Your task to perform on an android device: uninstall "Google Docs" Image 0: 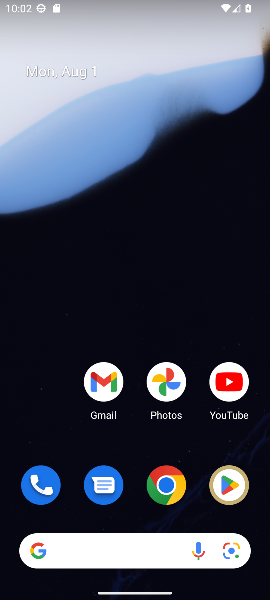
Step 0: drag from (155, 539) to (153, 49)
Your task to perform on an android device: uninstall "Google Docs" Image 1: 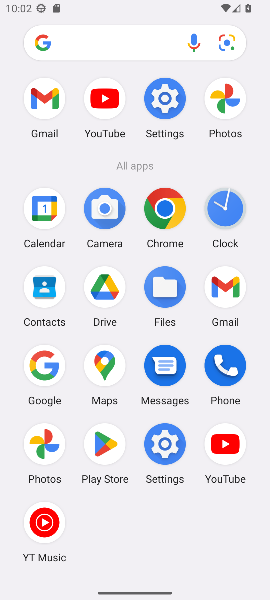
Step 1: click (92, 444)
Your task to perform on an android device: uninstall "Google Docs" Image 2: 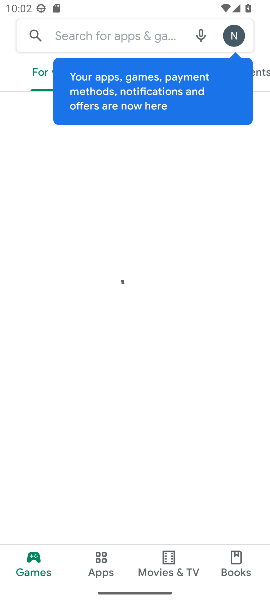
Step 2: click (135, 30)
Your task to perform on an android device: uninstall "Google Docs" Image 3: 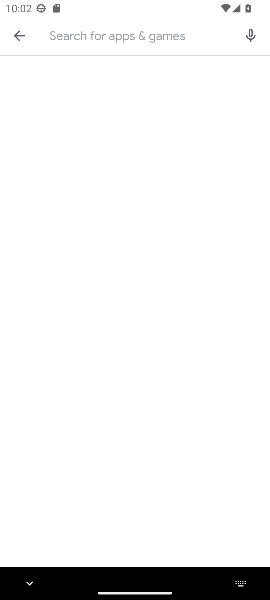
Step 3: type "Google docs"
Your task to perform on an android device: uninstall "Google Docs" Image 4: 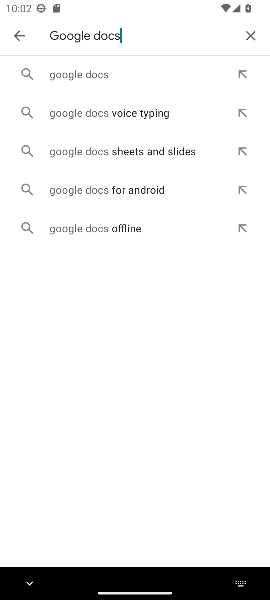
Step 4: click (47, 71)
Your task to perform on an android device: uninstall "Google Docs" Image 5: 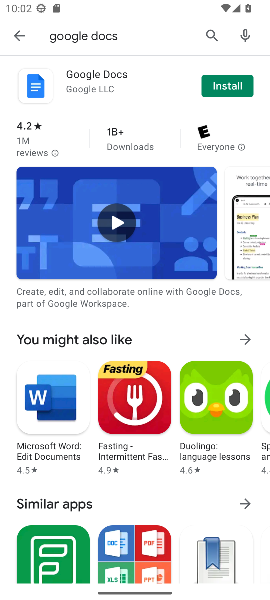
Step 5: task complete